Your task to perform on an android device: open app "Upside-Cash back on gas & food" Image 0: 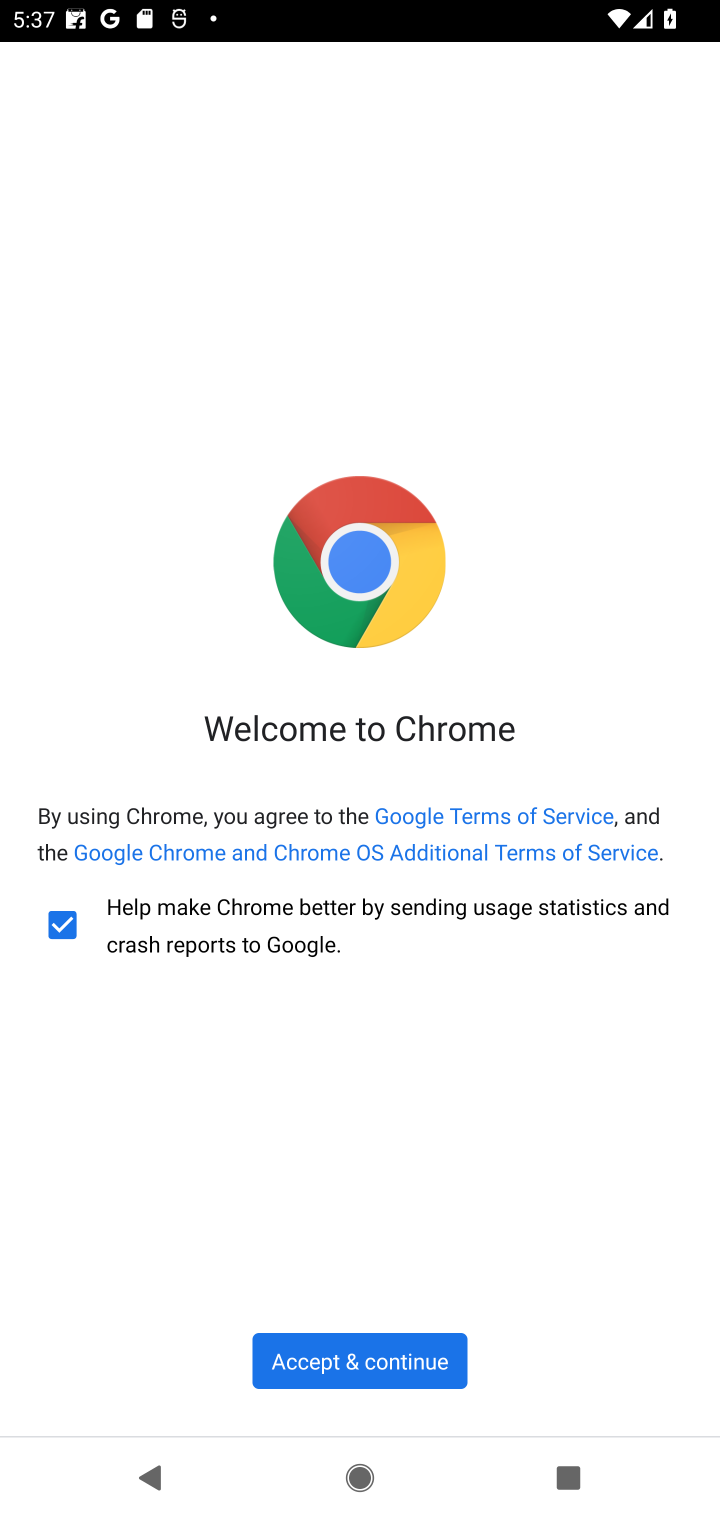
Step 0: press home button
Your task to perform on an android device: open app "Upside-Cash back on gas & food" Image 1: 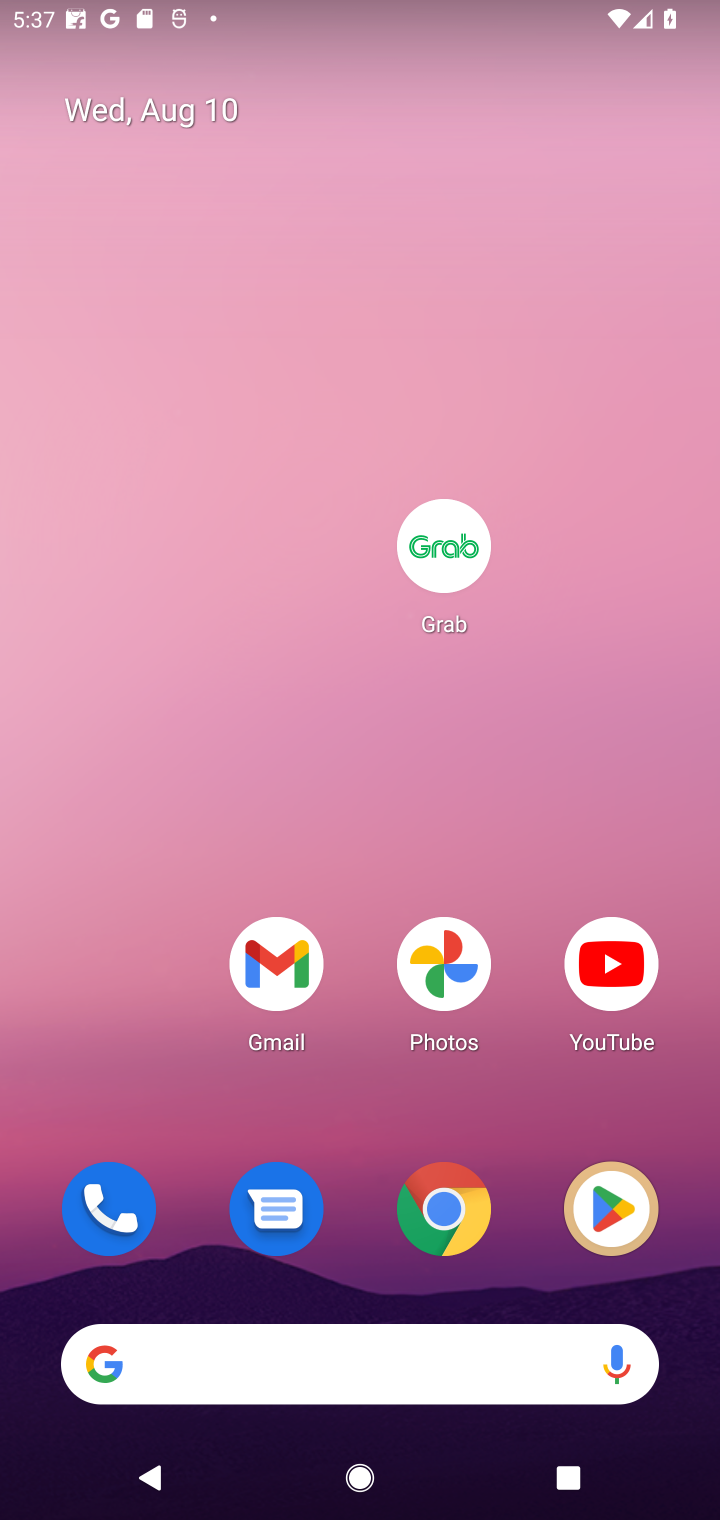
Step 1: click (589, 1234)
Your task to perform on an android device: open app "Upside-Cash back on gas & food" Image 2: 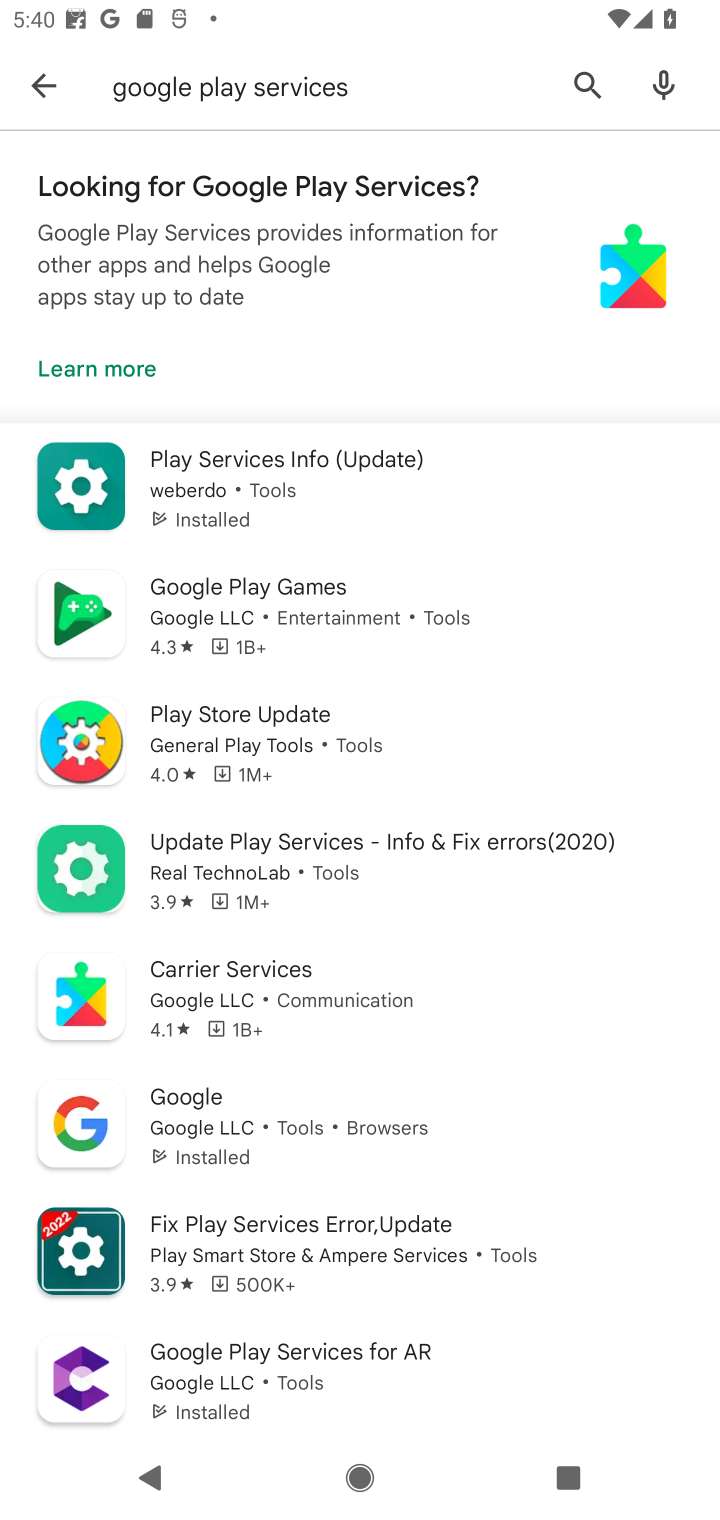
Step 2: click (556, 82)
Your task to perform on an android device: open app "Upside-Cash back on gas & food" Image 3: 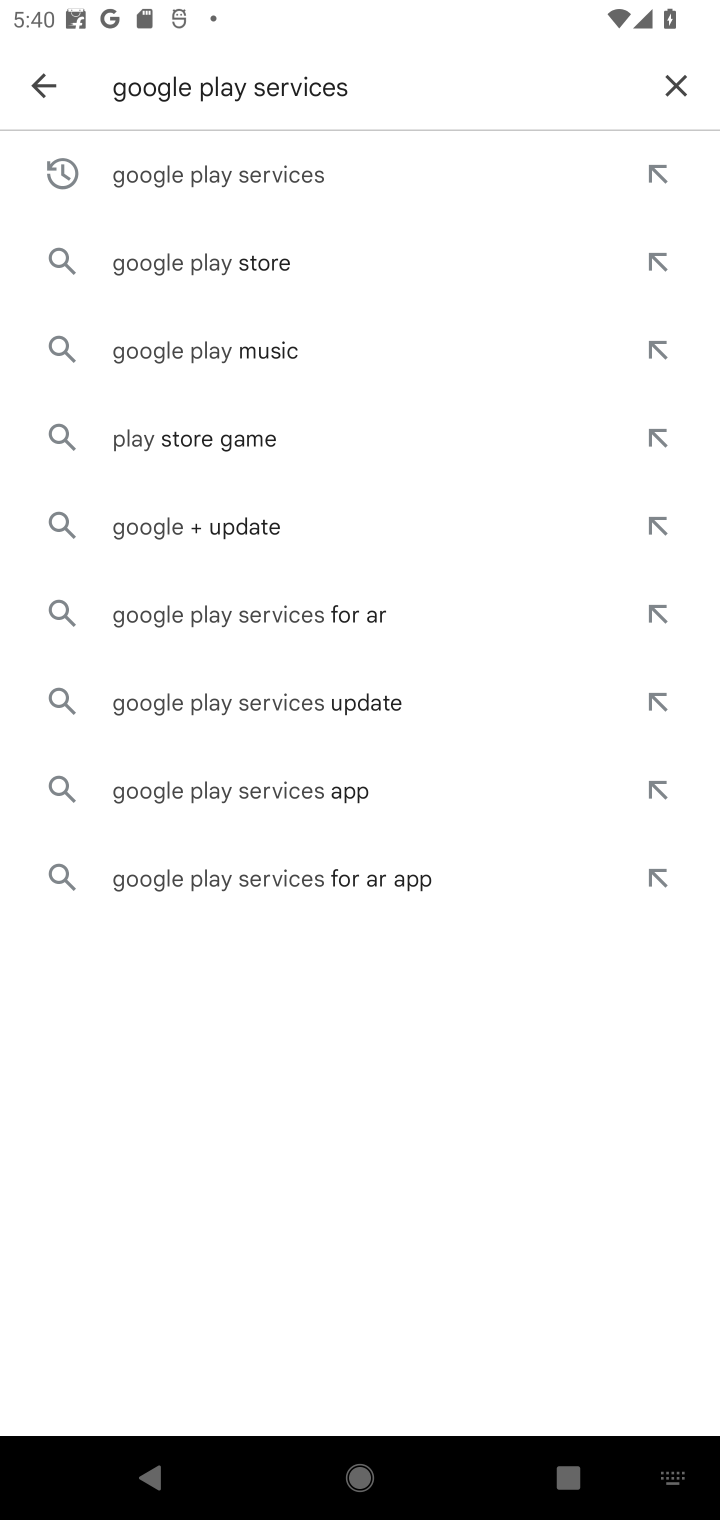
Step 3: click (665, 65)
Your task to perform on an android device: open app "Upside-Cash back on gas & food" Image 4: 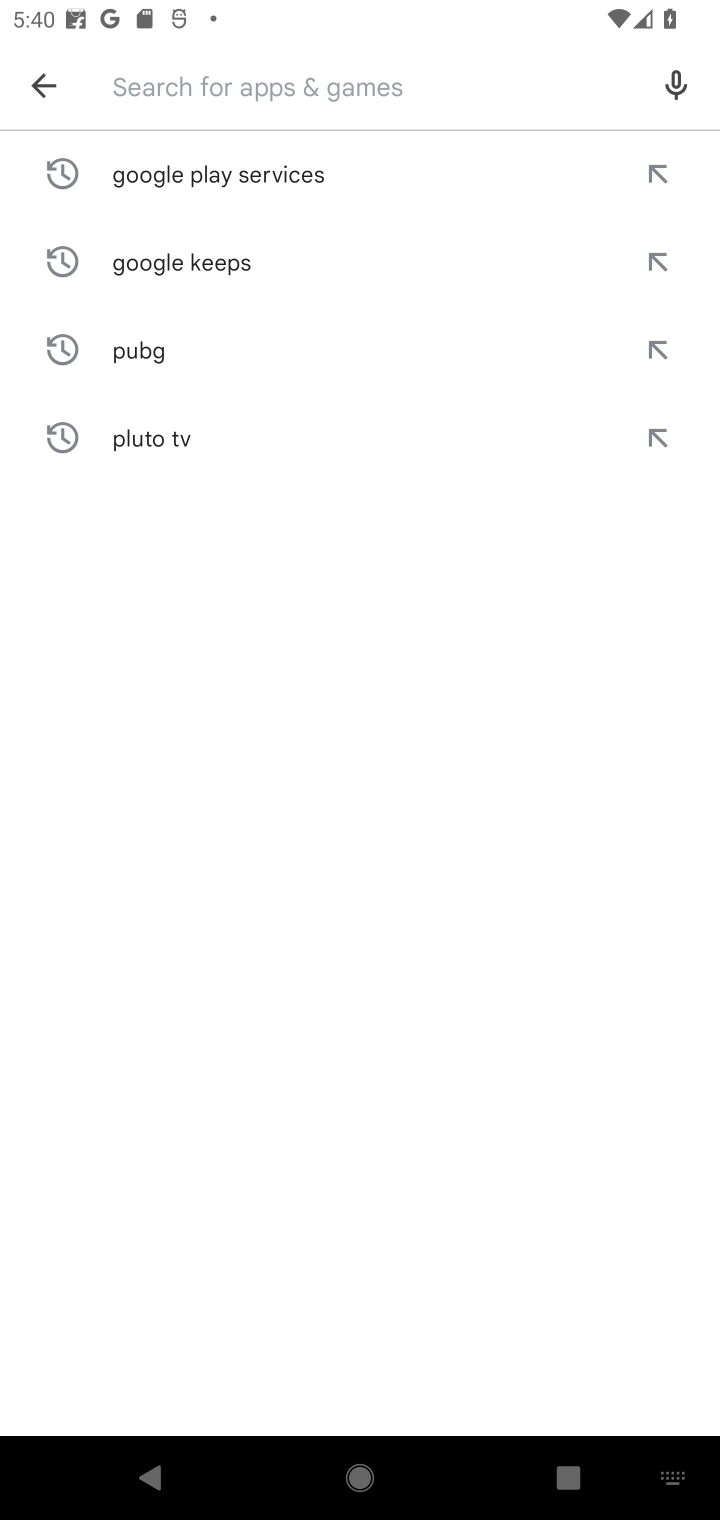
Step 4: type "upside cas"
Your task to perform on an android device: open app "Upside-Cash back on gas & food" Image 5: 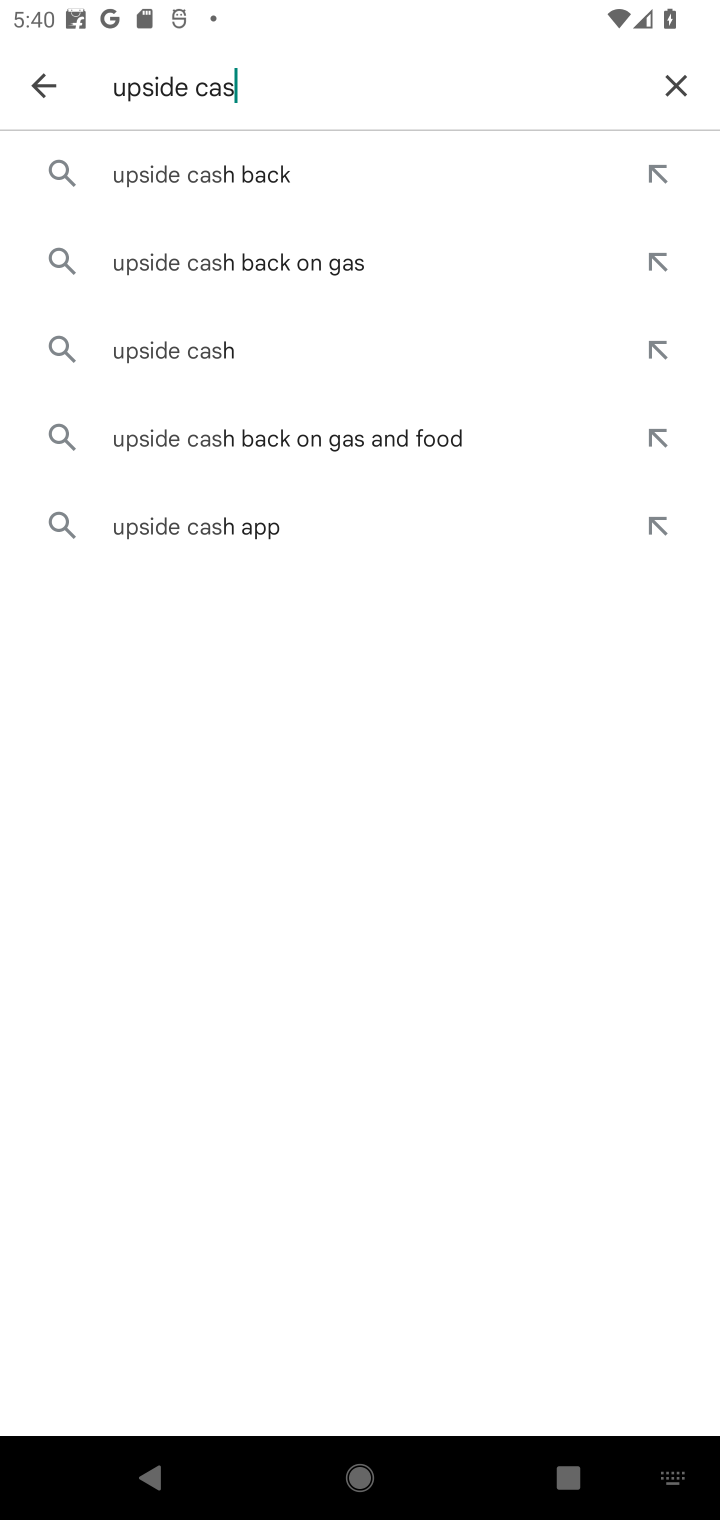
Step 5: click (241, 178)
Your task to perform on an android device: open app "Upside-Cash back on gas & food" Image 6: 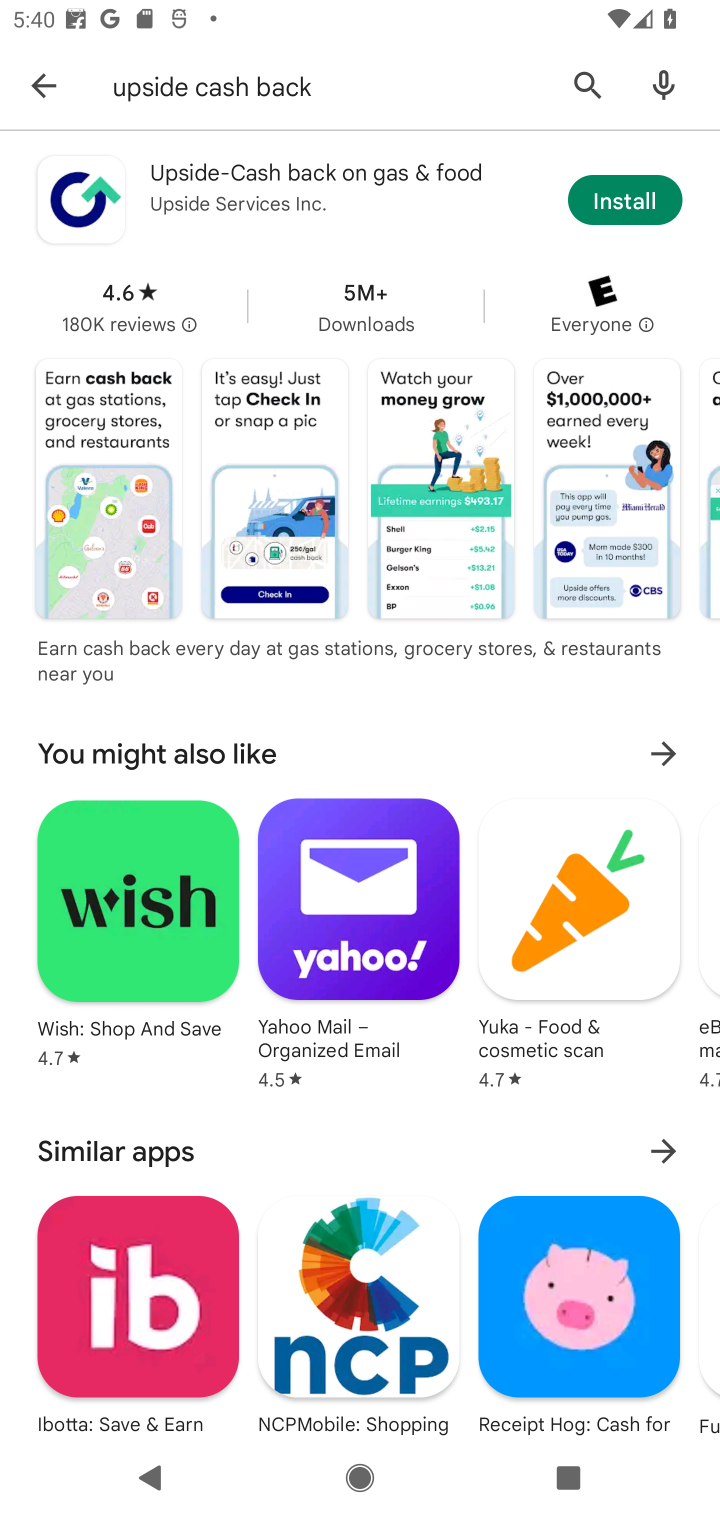
Step 6: click (662, 217)
Your task to perform on an android device: open app "Upside-Cash back on gas & food" Image 7: 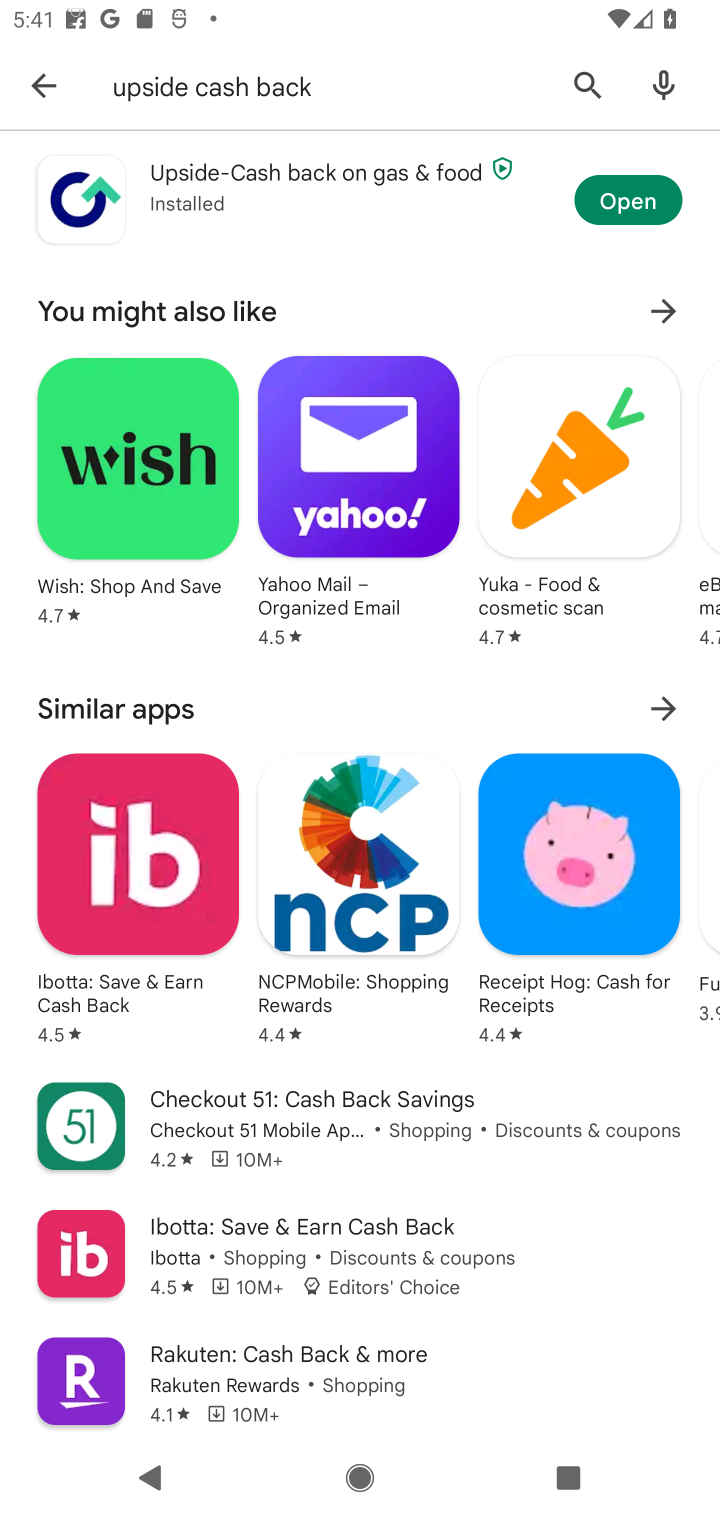
Step 7: click (553, 190)
Your task to perform on an android device: open app "Upside-Cash back on gas & food" Image 8: 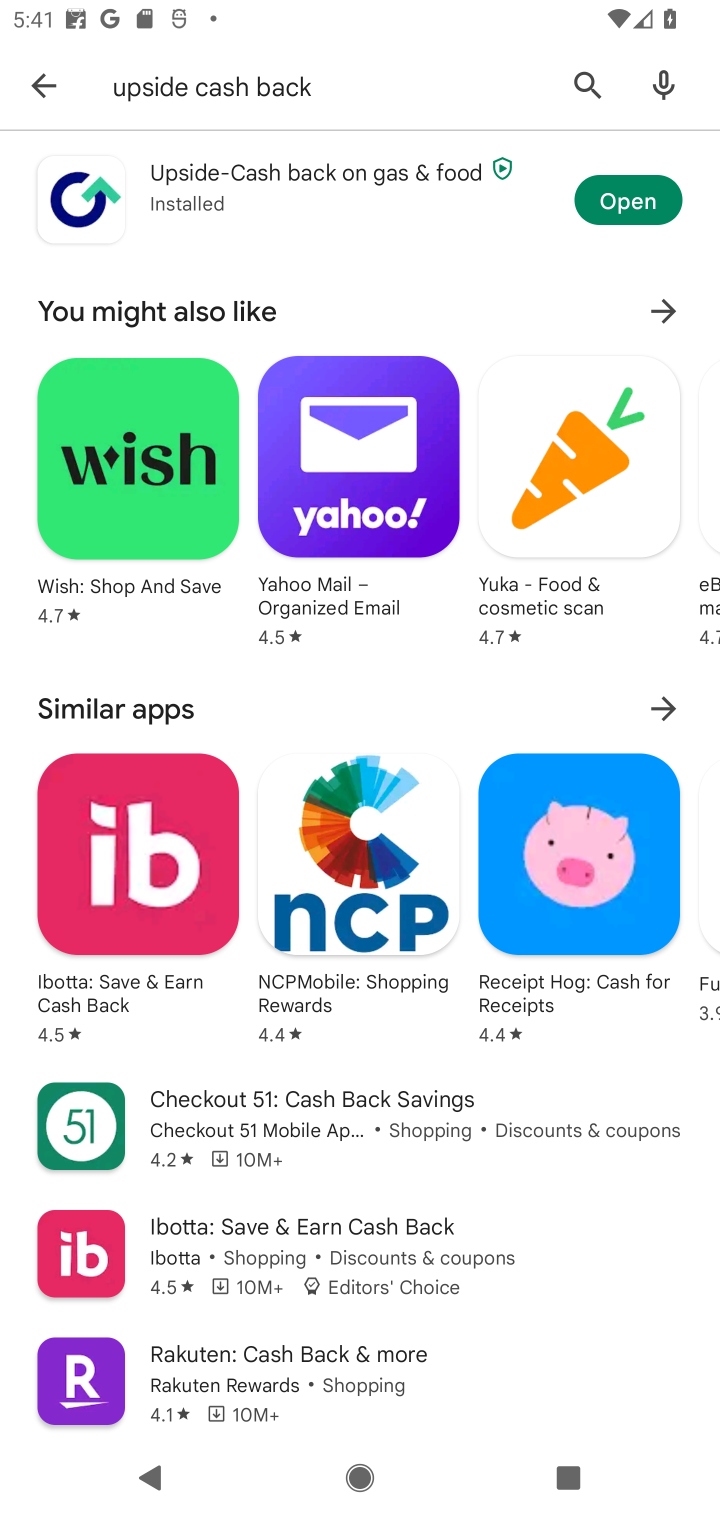
Step 8: click (632, 205)
Your task to perform on an android device: open app "Upside-Cash back on gas & food" Image 9: 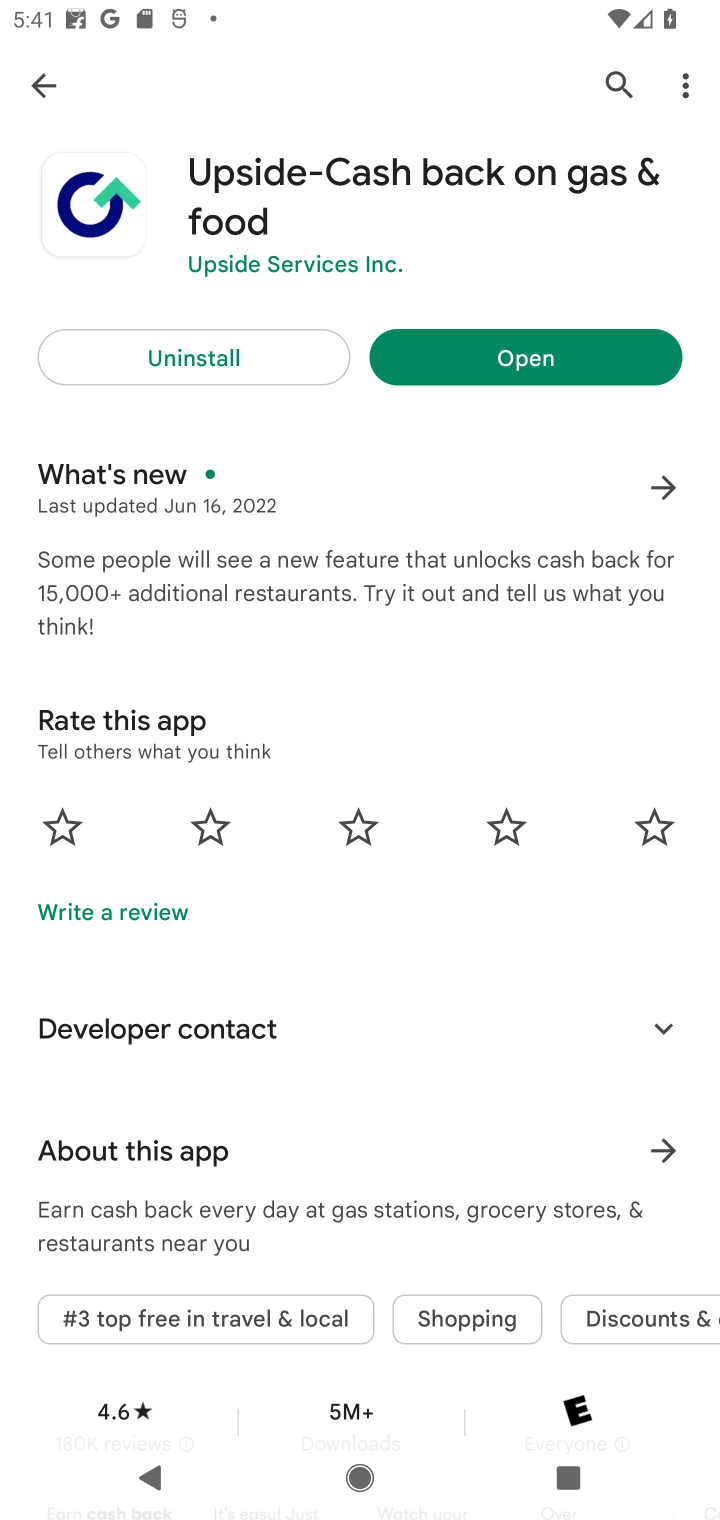
Step 9: task complete